Your task to perform on an android device: Go to Android settings Image 0: 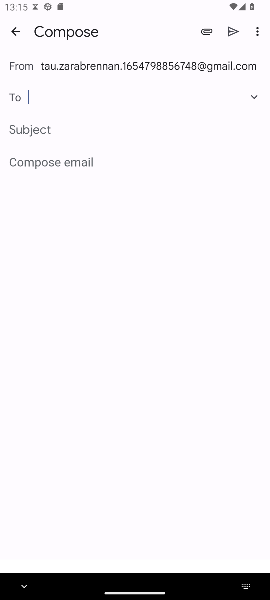
Step 0: press home button
Your task to perform on an android device: Go to Android settings Image 1: 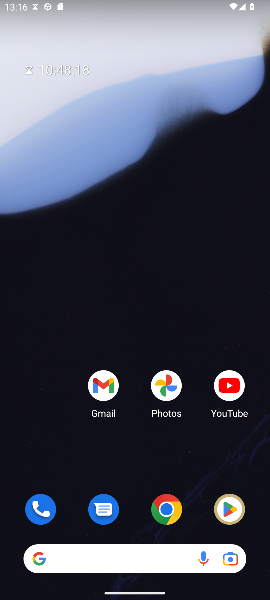
Step 1: drag from (148, 488) to (152, 24)
Your task to perform on an android device: Go to Android settings Image 2: 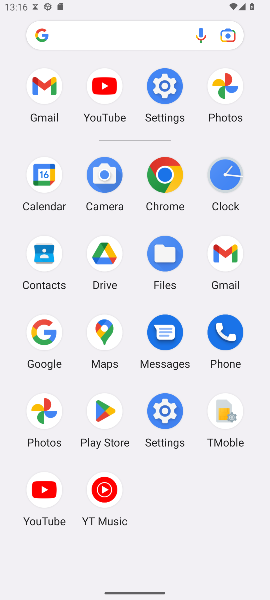
Step 2: click (173, 415)
Your task to perform on an android device: Go to Android settings Image 3: 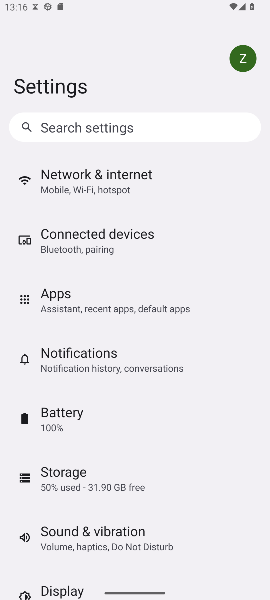
Step 3: task complete